Your task to perform on an android device: show emergency info Image 0: 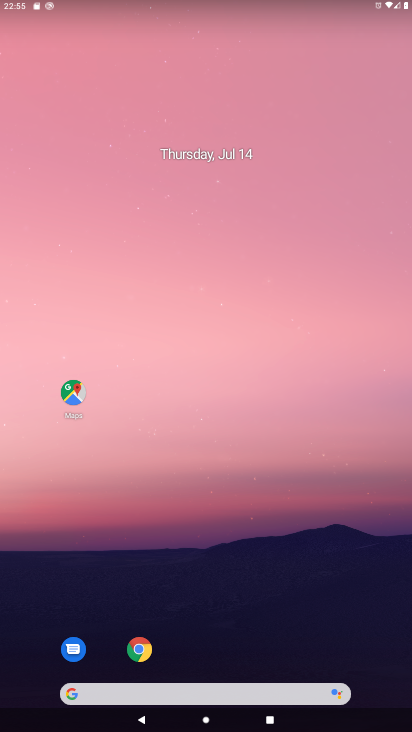
Step 0: drag from (160, 671) to (180, 128)
Your task to perform on an android device: show emergency info Image 1: 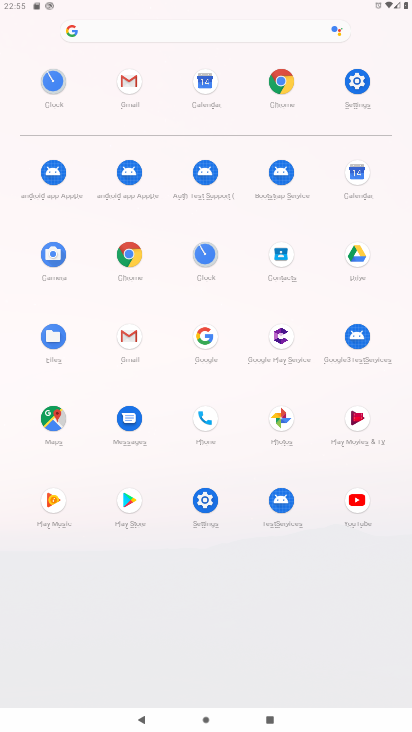
Step 1: click (351, 82)
Your task to perform on an android device: show emergency info Image 2: 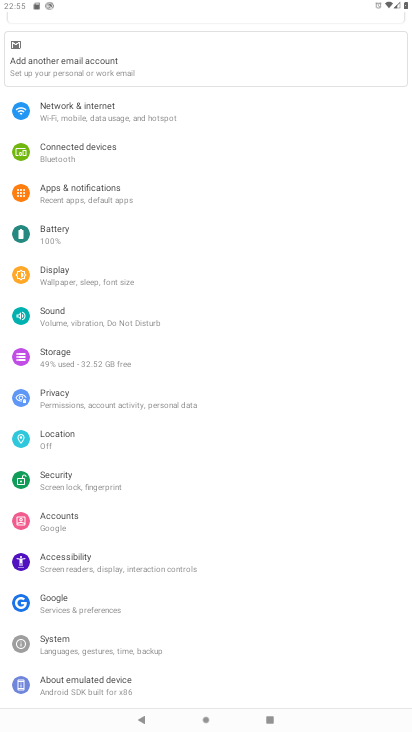
Step 2: click (146, 676)
Your task to perform on an android device: show emergency info Image 3: 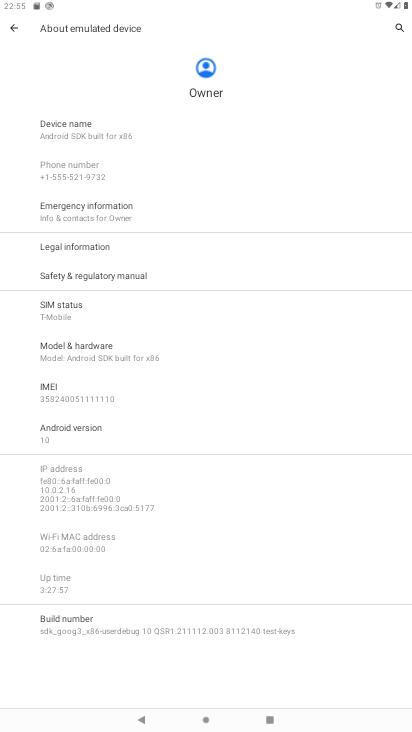
Step 3: click (154, 215)
Your task to perform on an android device: show emergency info Image 4: 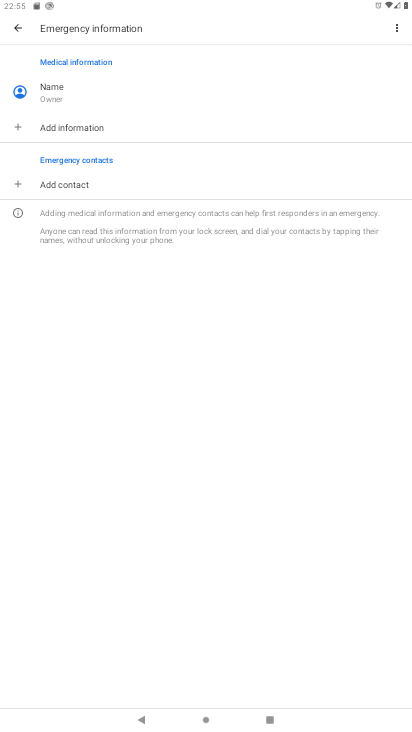
Step 4: task complete